Your task to perform on an android device: set an alarm Image 0: 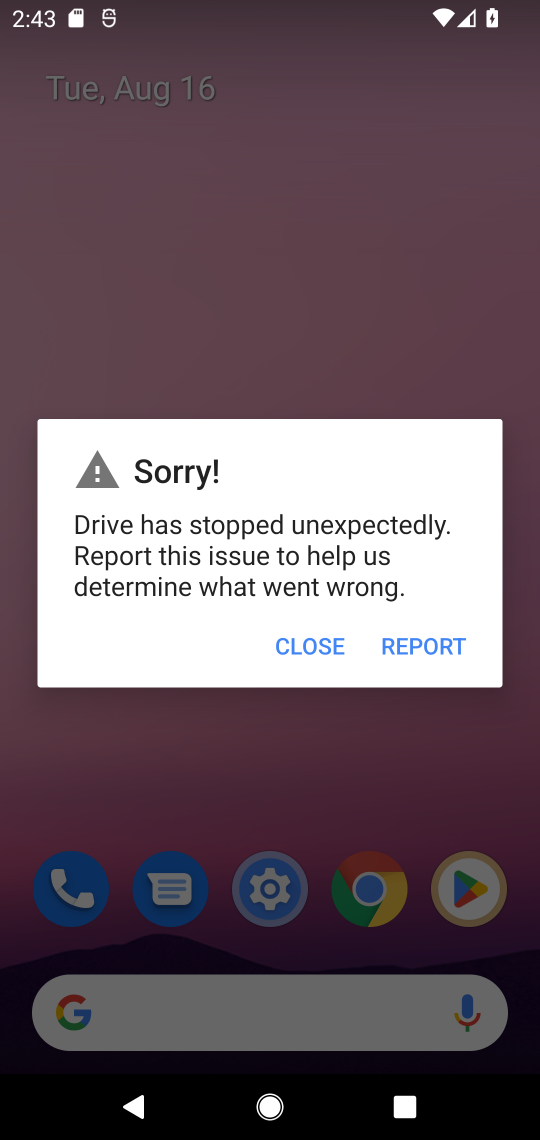
Step 0: click (314, 645)
Your task to perform on an android device: set an alarm Image 1: 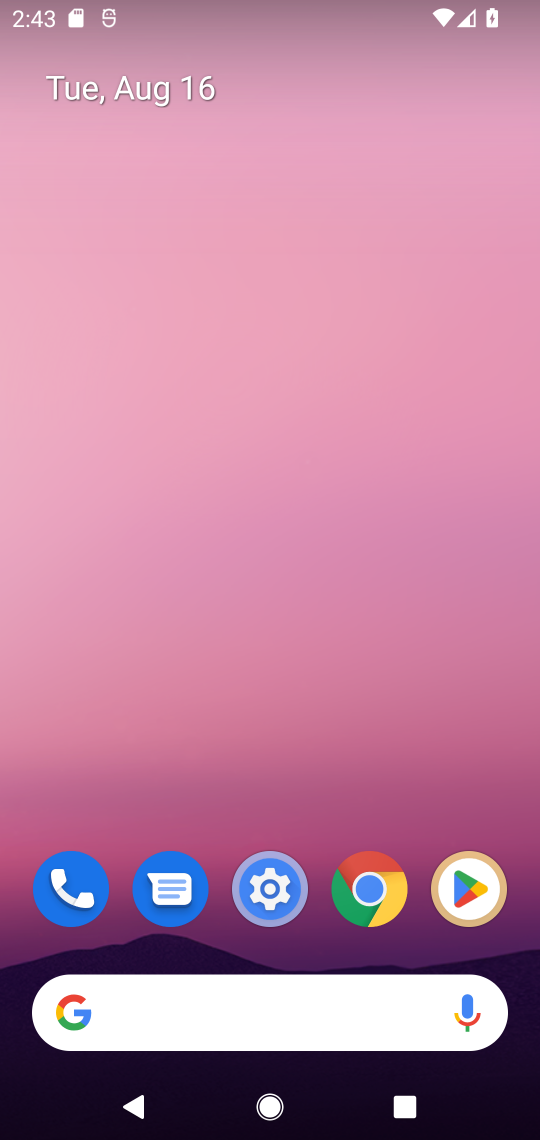
Step 1: drag from (237, 745) to (341, 18)
Your task to perform on an android device: set an alarm Image 2: 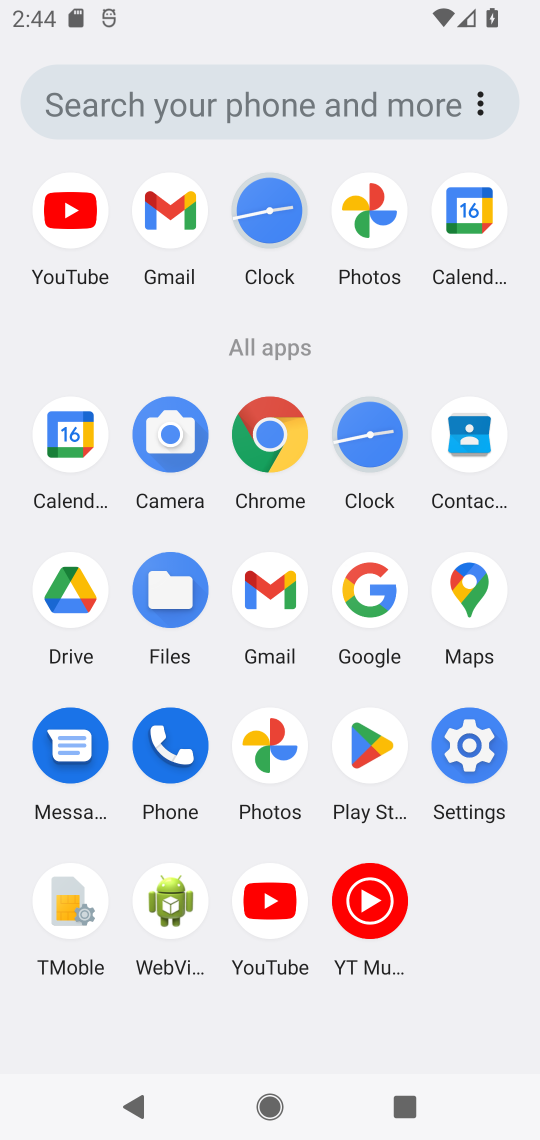
Step 2: click (370, 432)
Your task to perform on an android device: set an alarm Image 3: 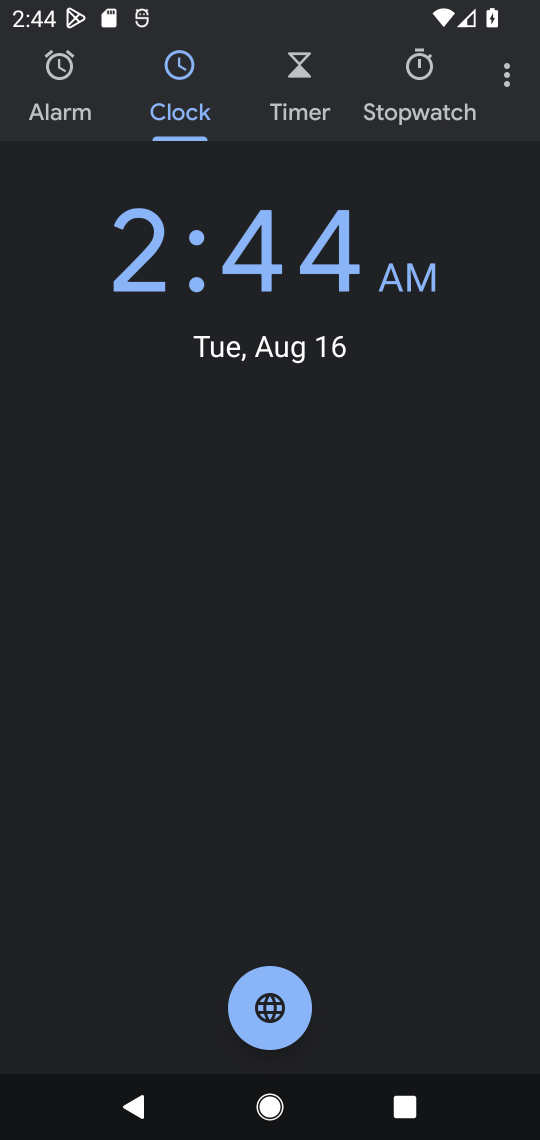
Step 3: click (75, 109)
Your task to perform on an android device: set an alarm Image 4: 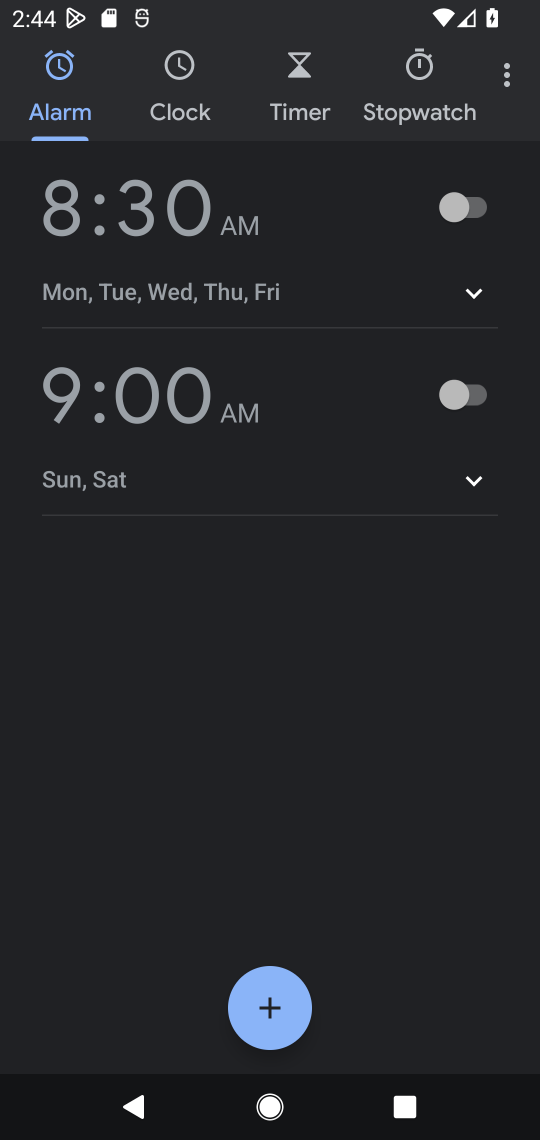
Step 4: click (453, 214)
Your task to perform on an android device: set an alarm Image 5: 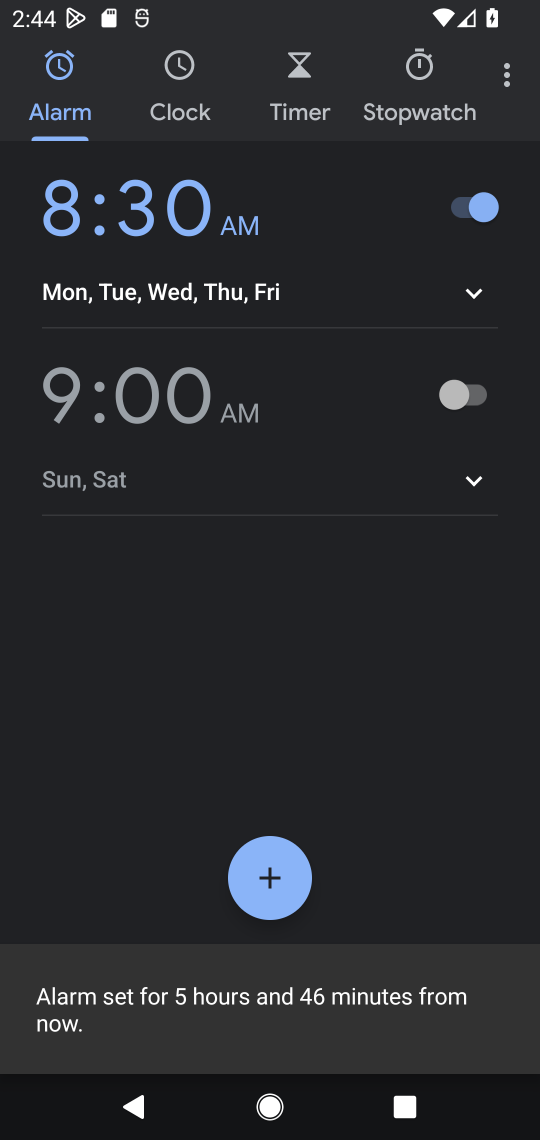
Step 5: task complete